Your task to perform on an android device: Go to Reddit.com Image 0: 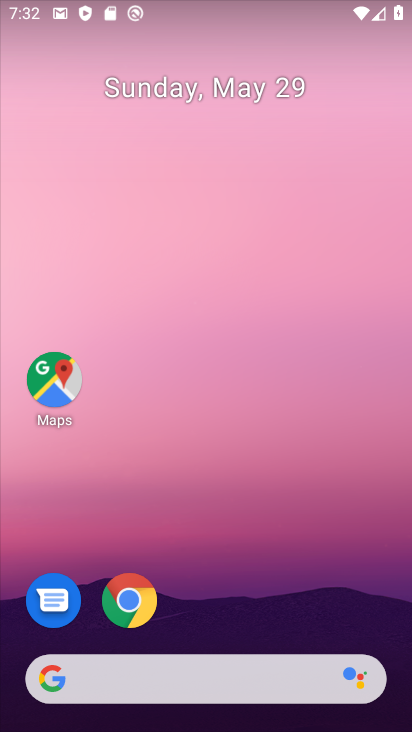
Step 0: drag from (333, 575) to (297, 175)
Your task to perform on an android device: Go to Reddit.com Image 1: 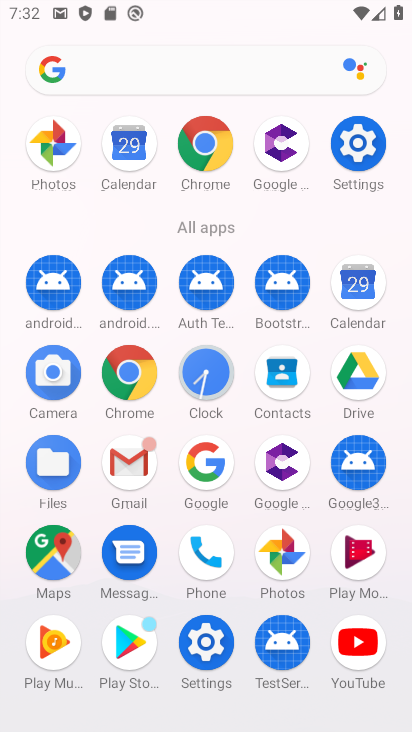
Step 1: click (120, 384)
Your task to perform on an android device: Go to Reddit.com Image 2: 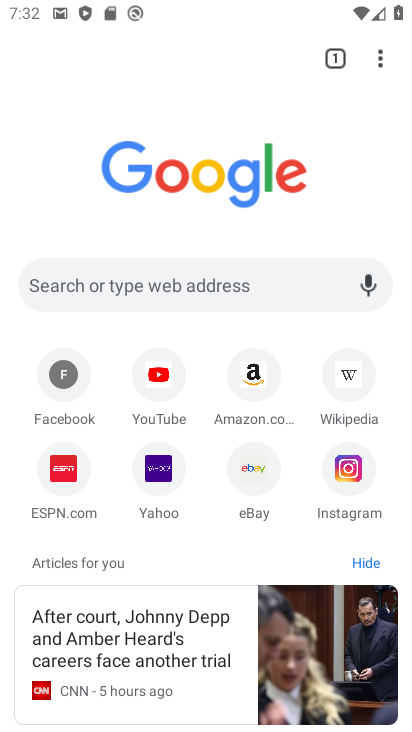
Step 2: click (159, 278)
Your task to perform on an android device: Go to Reddit.com Image 3: 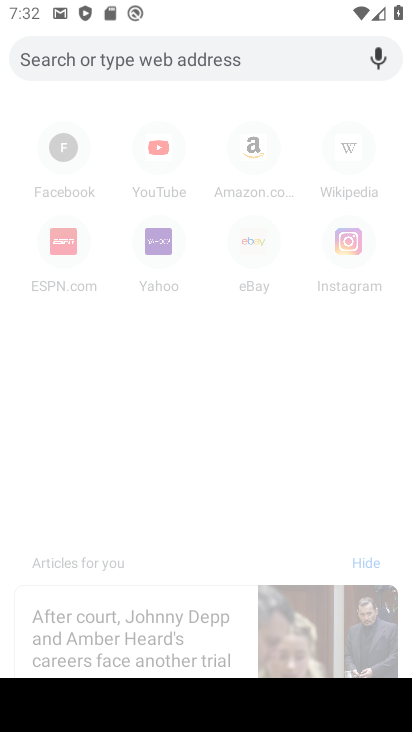
Step 3: type "reddit.com"
Your task to perform on an android device: Go to Reddit.com Image 4: 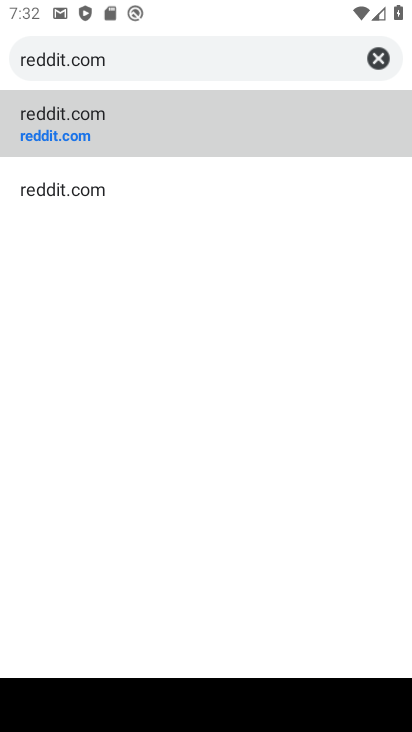
Step 4: click (89, 125)
Your task to perform on an android device: Go to Reddit.com Image 5: 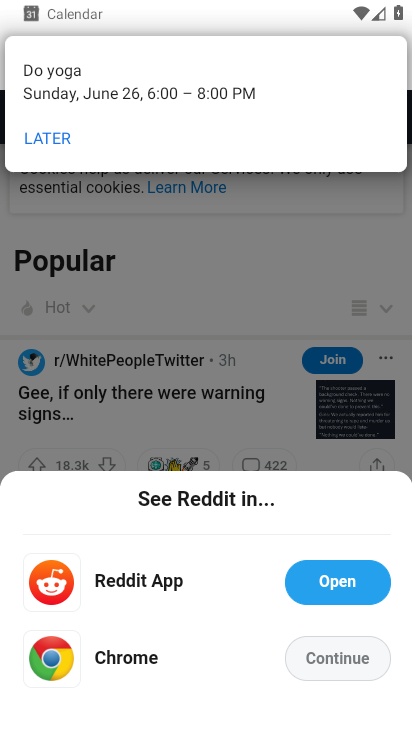
Step 5: task complete